Your task to perform on an android device: toggle pop-ups in chrome Image 0: 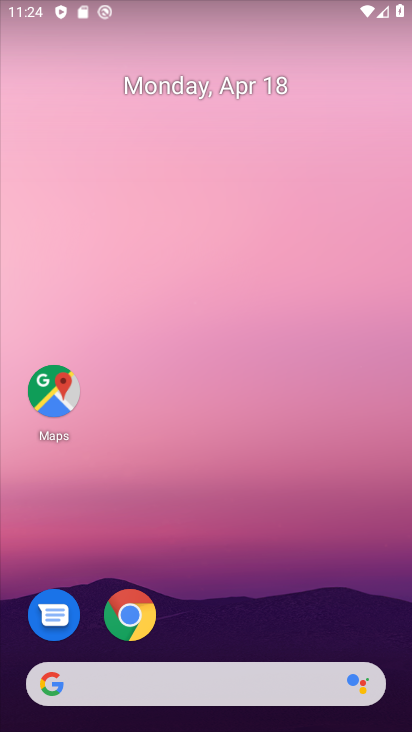
Step 0: click (130, 615)
Your task to perform on an android device: toggle pop-ups in chrome Image 1: 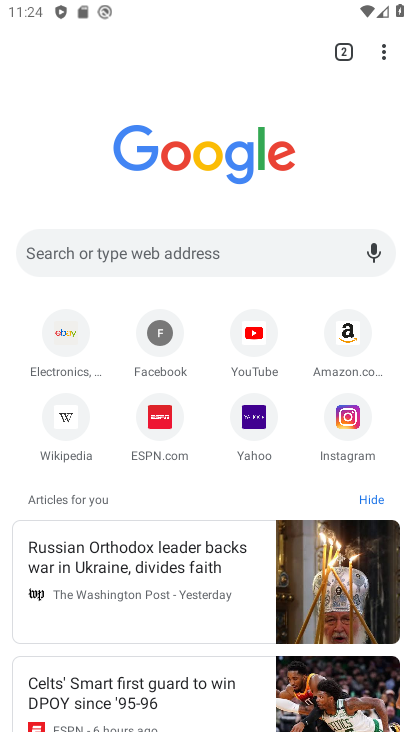
Step 1: click (189, 473)
Your task to perform on an android device: toggle pop-ups in chrome Image 2: 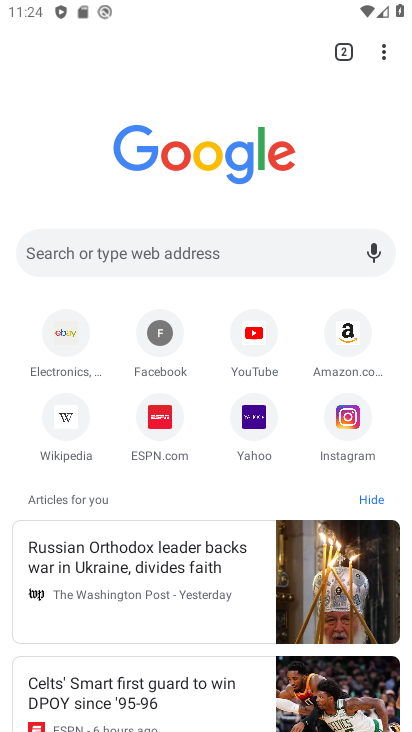
Step 2: click (385, 52)
Your task to perform on an android device: toggle pop-ups in chrome Image 3: 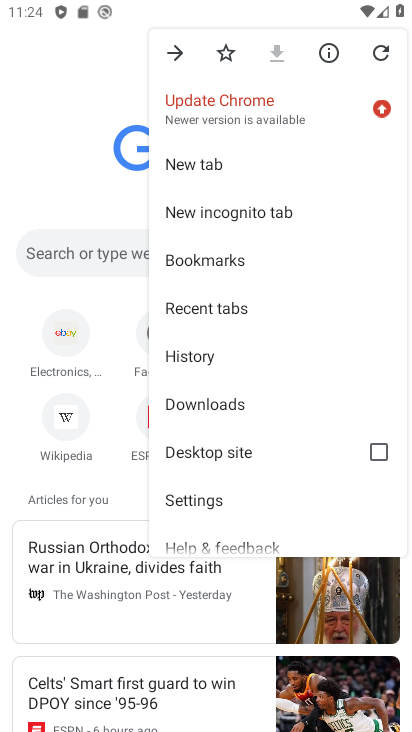
Step 3: click (199, 499)
Your task to perform on an android device: toggle pop-ups in chrome Image 4: 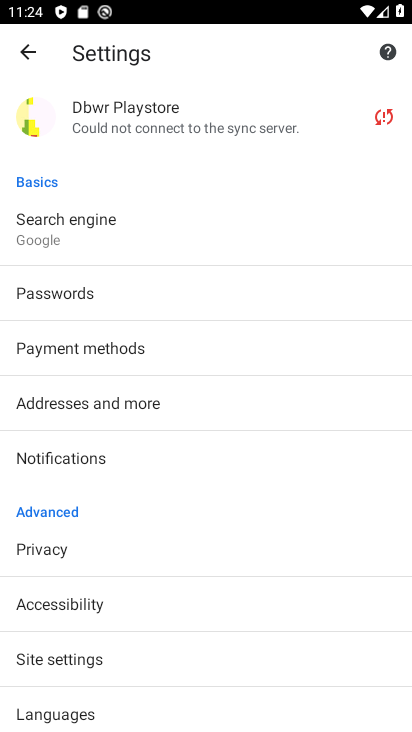
Step 4: click (67, 657)
Your task to perform on an android device: toggle pop-ups in chrome Image 5: 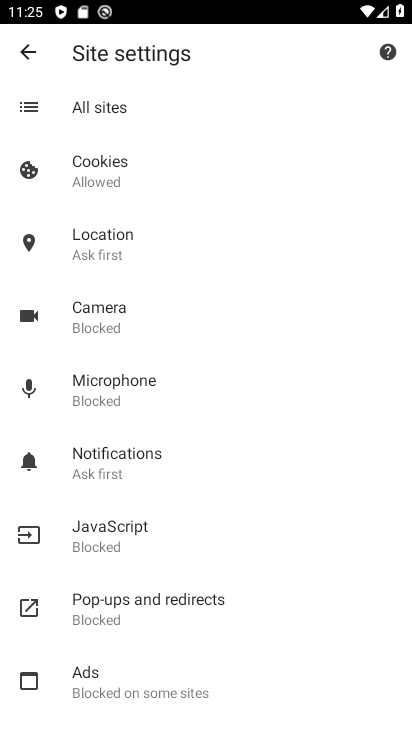
Step 5: click (116, 600)
Your task to perform on an android device: toggle pop-ups in chrome Image 6: 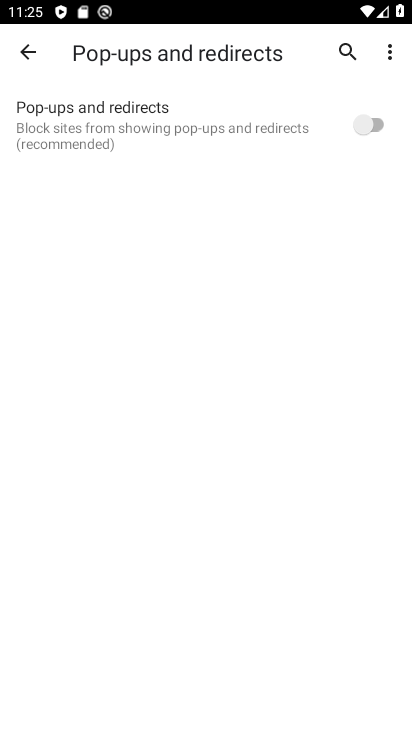
Step 6: click (377, 127)
Your task to perform on an android device: toggle pop-ups in chrome Image 7: 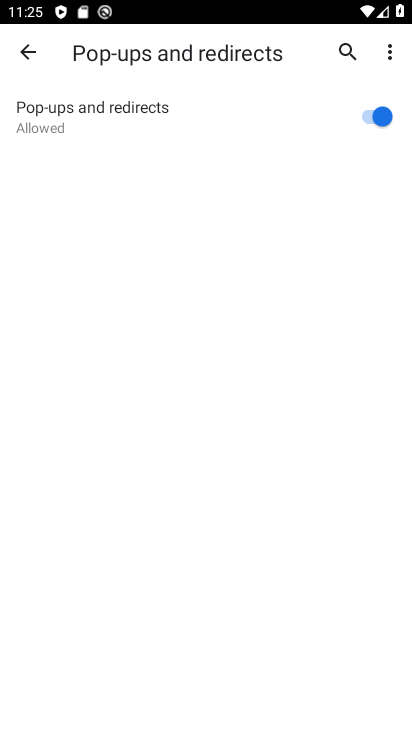
Step 7: task complete